Your task to perform on an android device: open the mobile data screen to see how much data has been used Image 0: 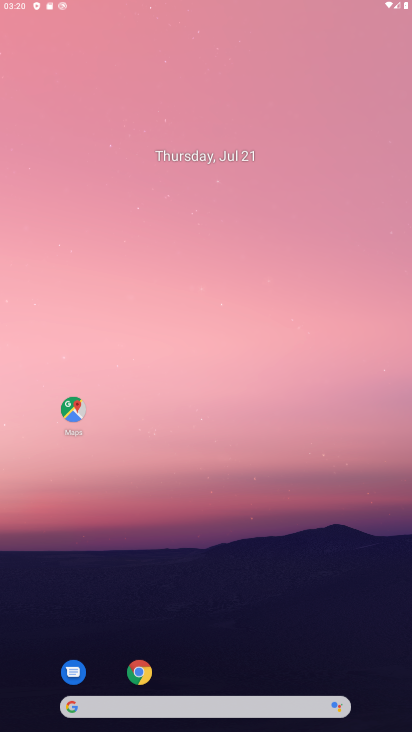
Step 0: press home button
Your task to perform on an android device: open the mobile data screen to see how much data has been used Image 1: 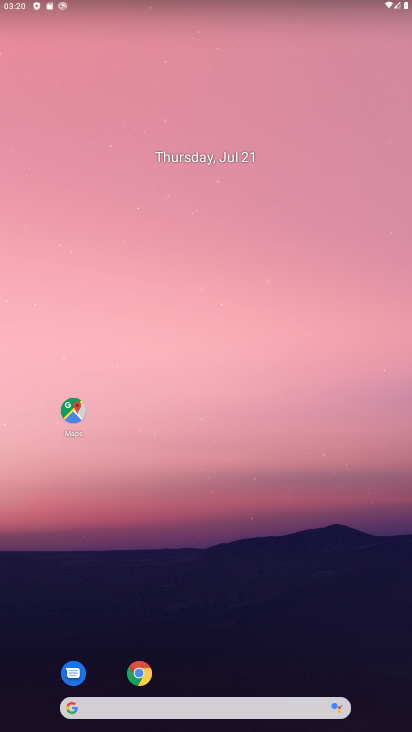
Step 1: drag from (297, 604) to (120, 154)
Your task to perform on an android device: open the mobile data screen to see how much data has been used Image 2: 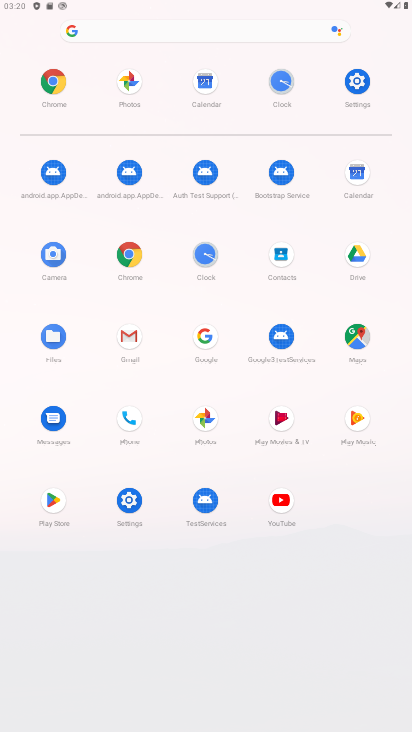
Step 2: click (355, 76)
Your task to perform on an android device: open the mobile data screen to see how much data has been used Image 3: 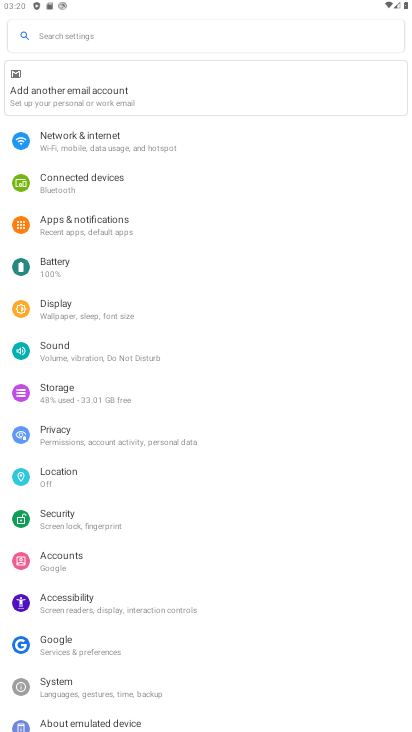
Step 3: click (127, 150)
Your task to perform on an android device: open the mobile data screen to see how much data has been used Image 4: 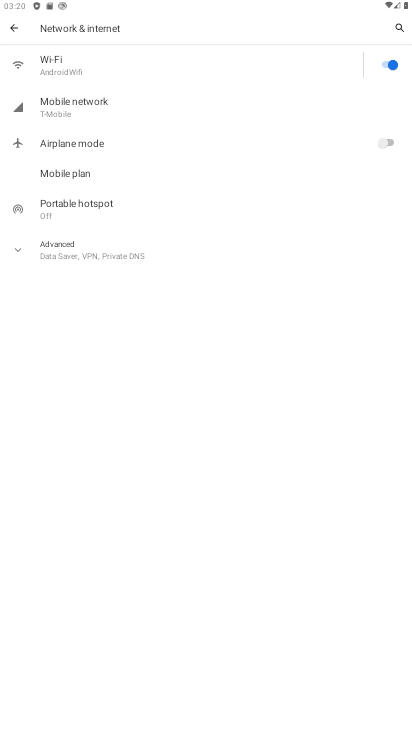
Step 4: click (80, 117)
Your task to perform on an android device: open the mobile data screen to see how much data has been used Image 5: 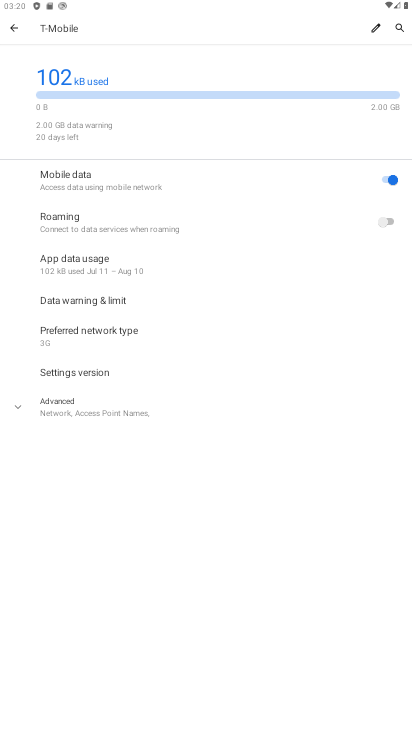
Step 5: task complete